Your task to perform on an android device: Search for logitech g pro on target.com, select the first entry, add it to the cart, then select checkout. Image 0: 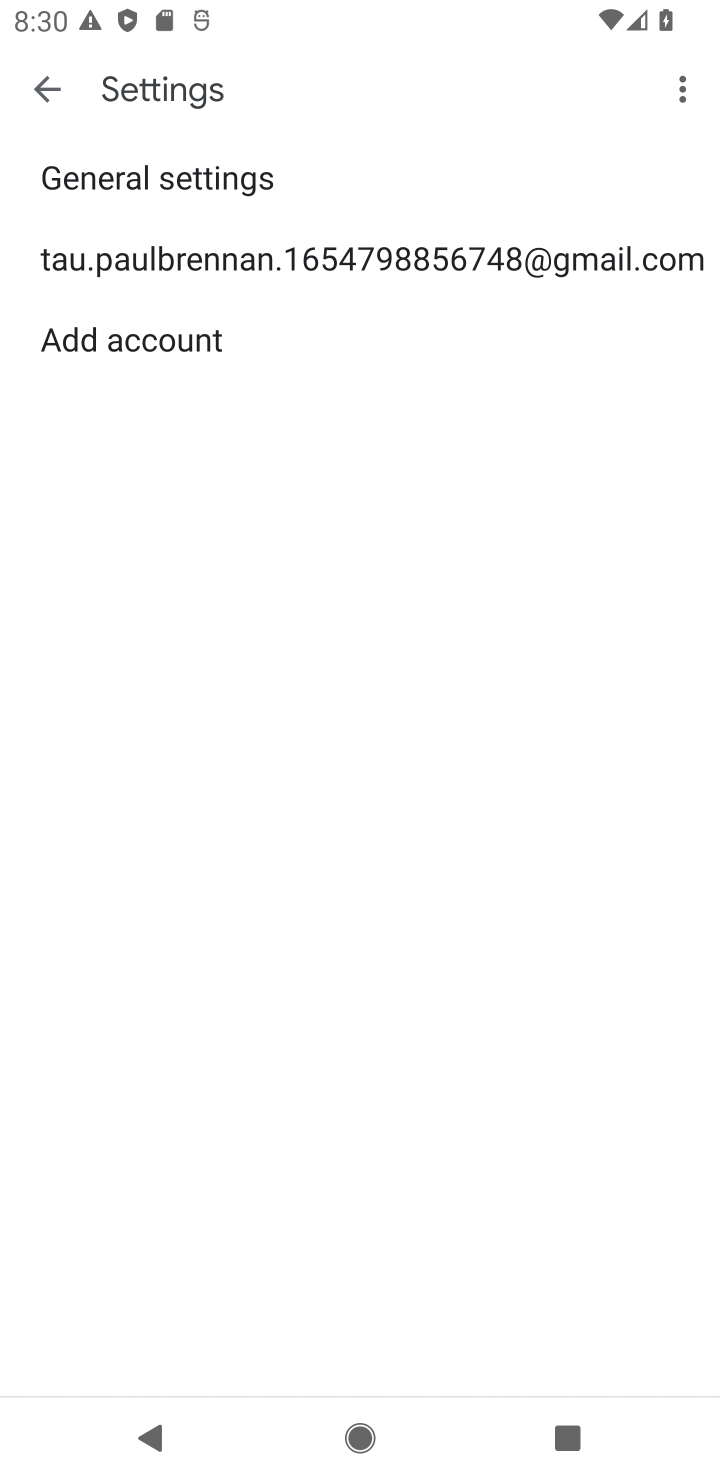
Step 0: task complete